Your task to perform on an android device: uninstall "Paramount+ | Peak Streaming" Image 0: 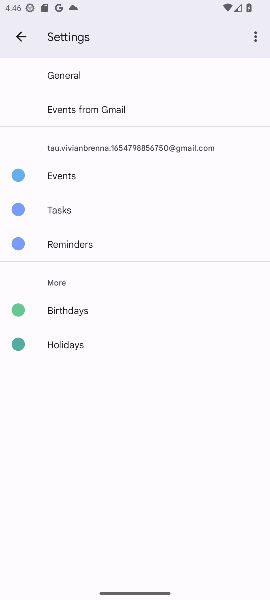
Step 0: press home button
Your task to perform on an android device: uninstall "Paramount+ | Peak Streaming" Image 1: 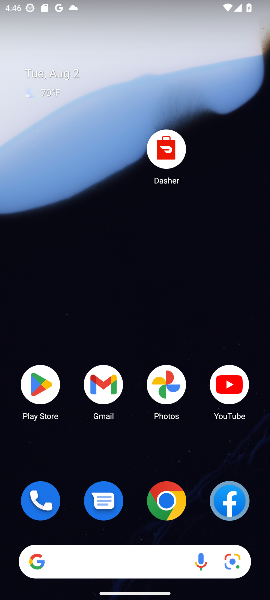
Step 1: click (35, 388)
Your task to perform on an android device: uninstall "Paramount+ | Peak Streaming" Image 2: 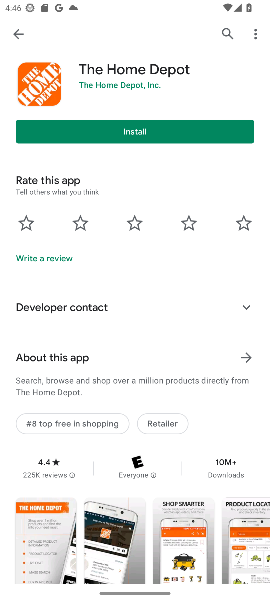
Step 2: click (219, 35)
Your task to perform on an android device: uninstall "Paramount+ | Peak Streaming" Image 3: 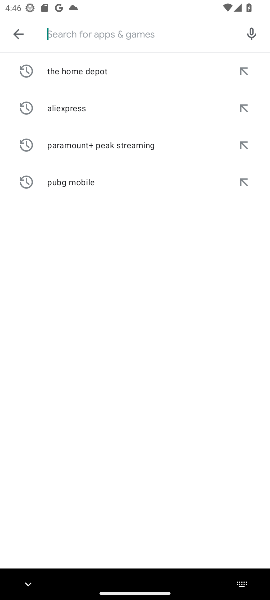
Step 3: type "Paramount+ | Peak Streaming"
Your task to perform on an android device: uninstall "Paramount+ | Peak Streaming" Image 4: 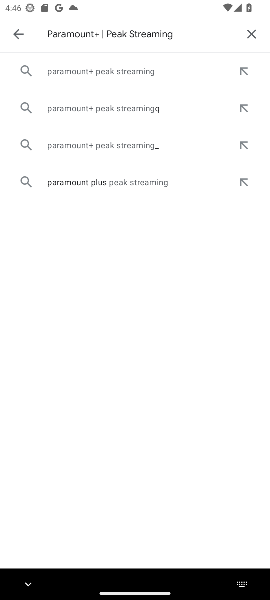
Step 4: click (124, 77)
Your task to perform on an android device: uninstall "Paramount+ | Peak Streaming" Image 5: 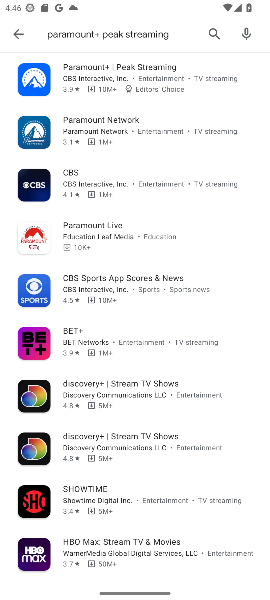
Step 5: click (124, 77)
Your task to perform on an android device: uninstall "Paramount+ | Peak Streaming" Image 6: 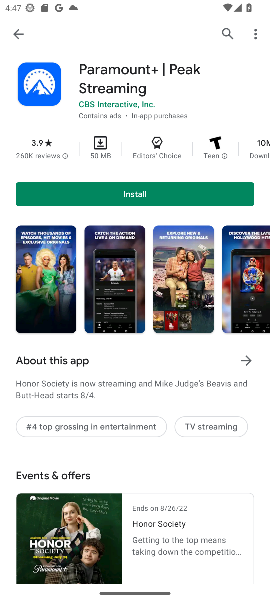
Step 6: task complete